Your task to perform on an android device: Open display settings Image 0: 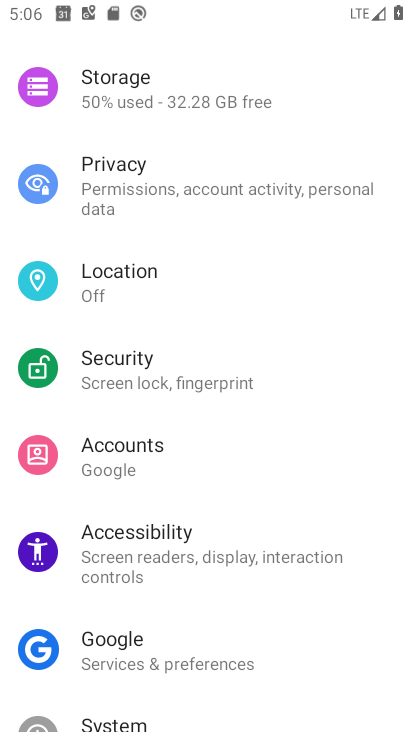
Step 0: press home button
Your task to perform on an android device: Open display settings Image 1: 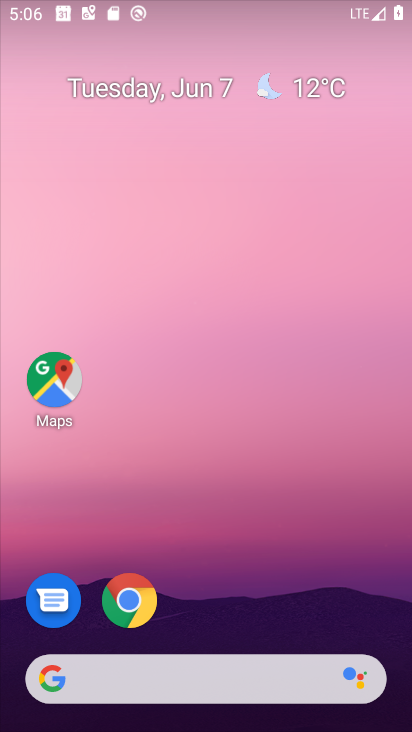
Step 1: drag from (354, 569) to (270, 14)
Your task to perform on an android device: Open display settings Image 2: 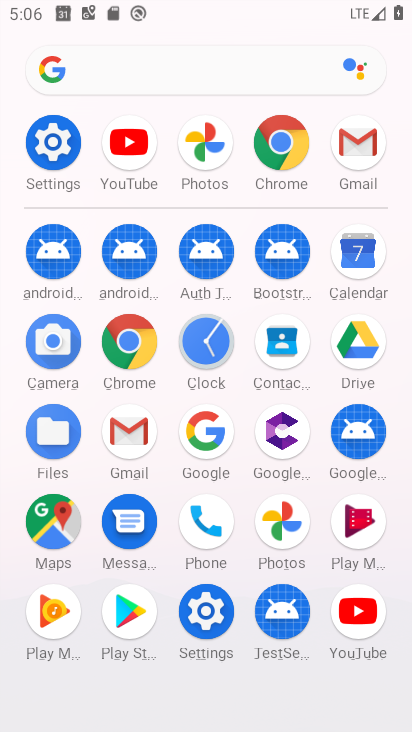
Step 2: click (48, 152)
Your task to perform on an android device: Open display settings Image 3: 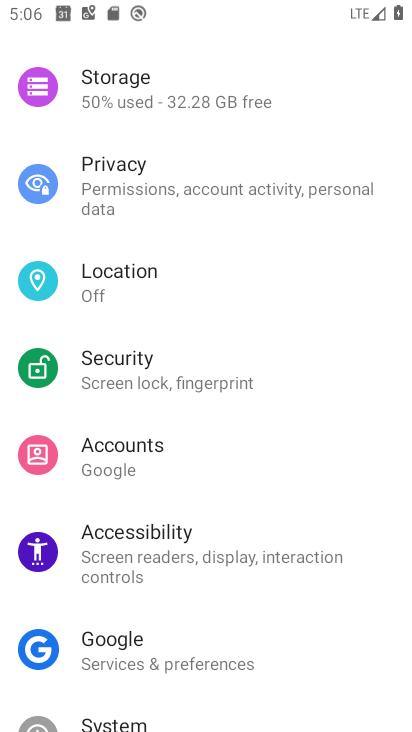
Step 3: drag from (242, 539) to (293, 124)
Your task to perform on an android device: Open display settings Image 4: 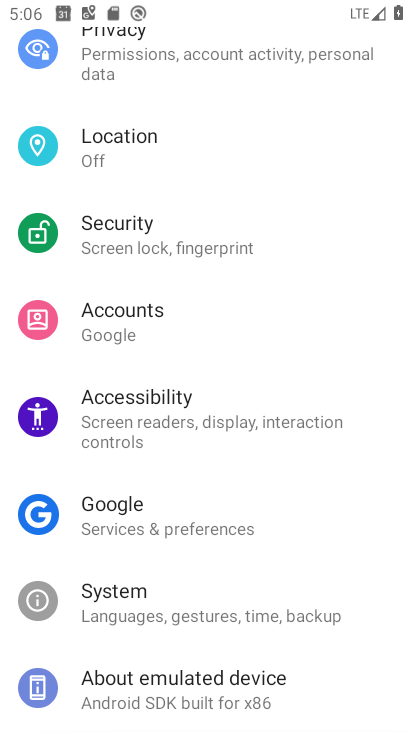
Step 4: drag from (290, 128) to (255, 684)
Your task to perform on an android device: Open display settings Image 5: 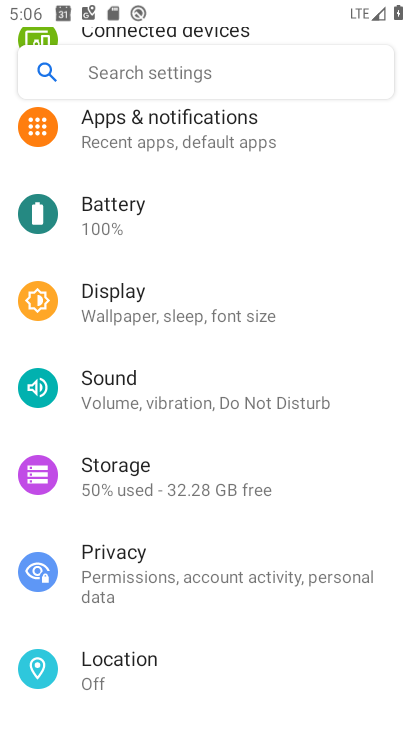
Step 5: click (178, 291)
Your task to perform on an android device: Open display settings Image 6: 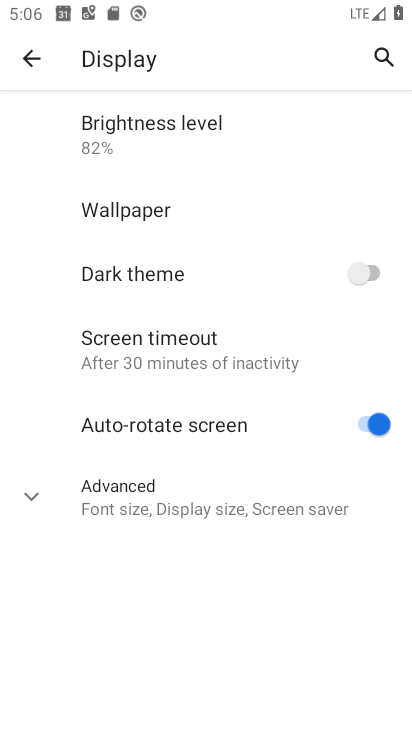
Step 6: task complete